Your task to perform on an android device: turn off translation in the chrome app Image 0: 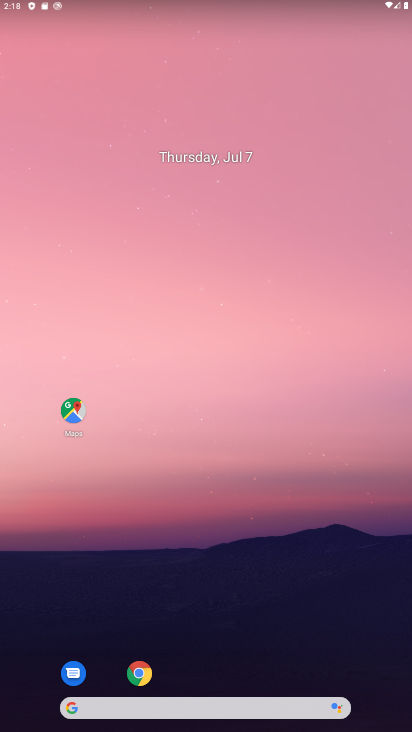
Step 0: drag from (219, 655) to (187, 110)
Your task to perform on an android device: turn off translation in the chrome app Image 1: 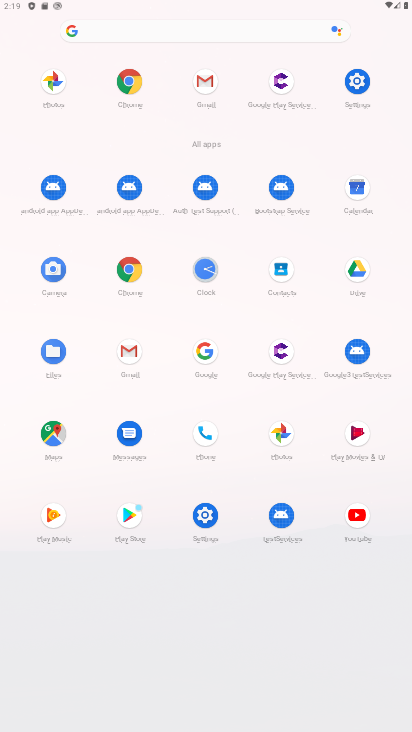
Step 1: click (116, 275)
Your task to perform on an android device: turn off translation in the chrome app Image 2: 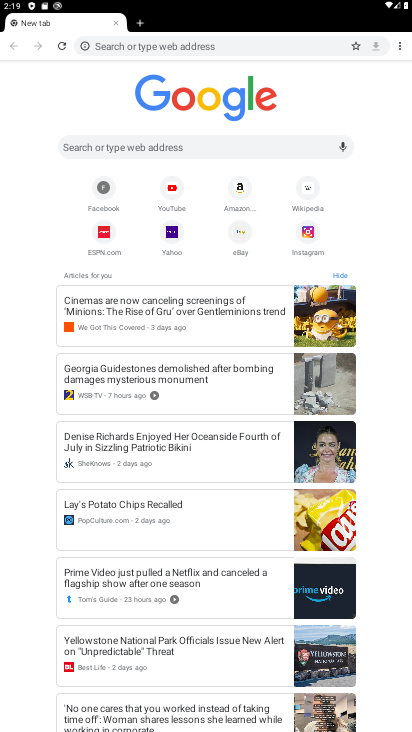
Step 2: click (400, 41)
Your task to perform on an android device: turn off translation in the chrome app Image 3: 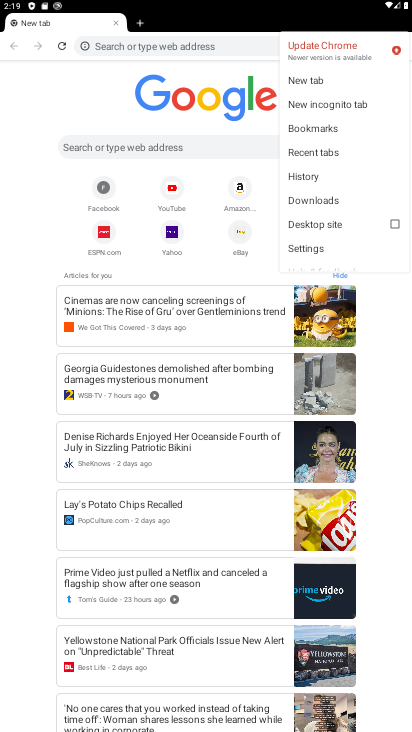
Step 3: click (310, 247)
Your task to perform on an android device: turn off translation in the chrome app Image 4: 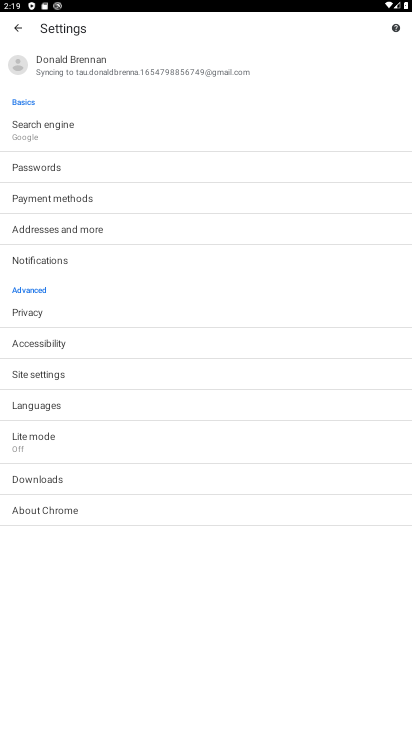
Step 4: click (38, 417)
Your task to perform on an android device: turn off translation in the chrome app Image 5: 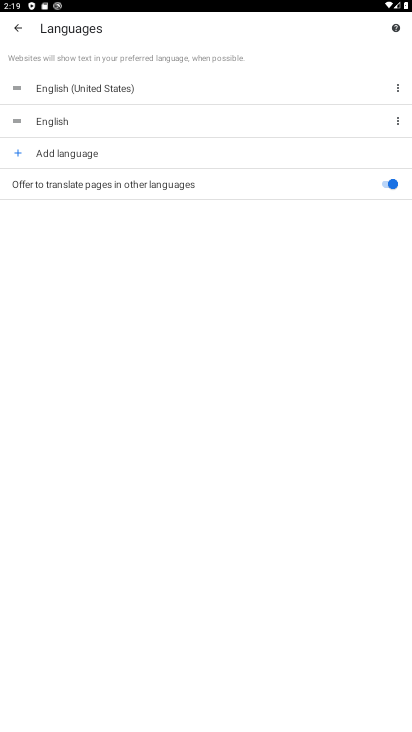
Step 5: click (387, 183)
Your task to perform on an android device: turn off translation in the chrome app Image 6: 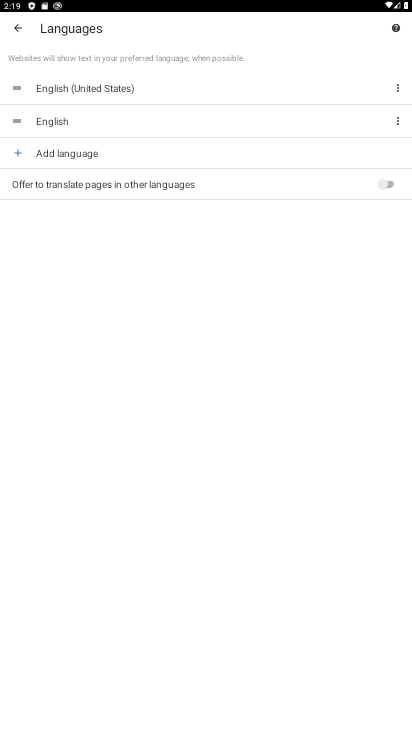
Step 6: task complete